Your task to perform on an android device: change notifications settings Image 0: 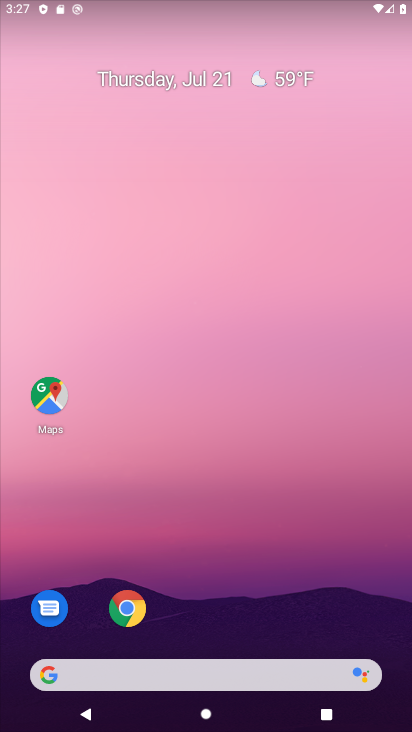
Step 0: drag from (126, 651) to (202, 98)
Your task to perform on an android device: change notifications settings Image 1: 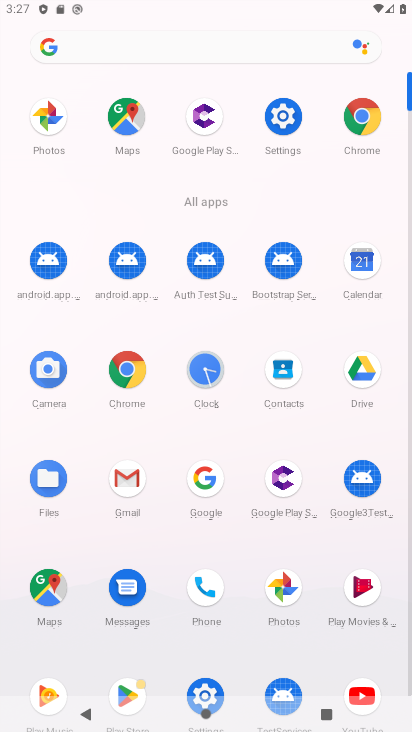
Step 1: click (280, 110)
Your task to perform on an android device: change notifications settings Image 2: 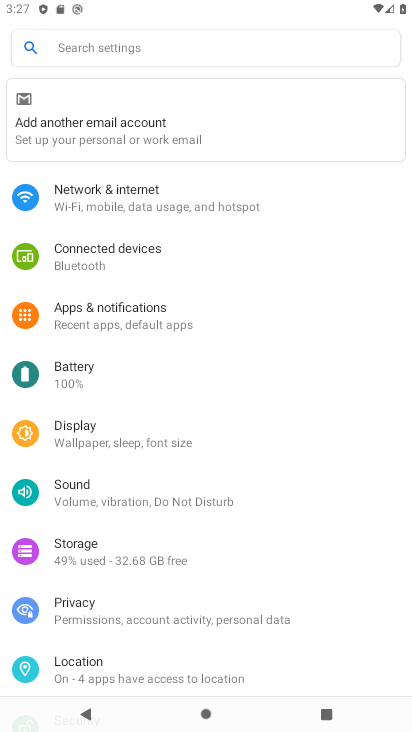
Step 2: click (117, 315)
Your task to perform on an android device: change notifications settings Image 3: 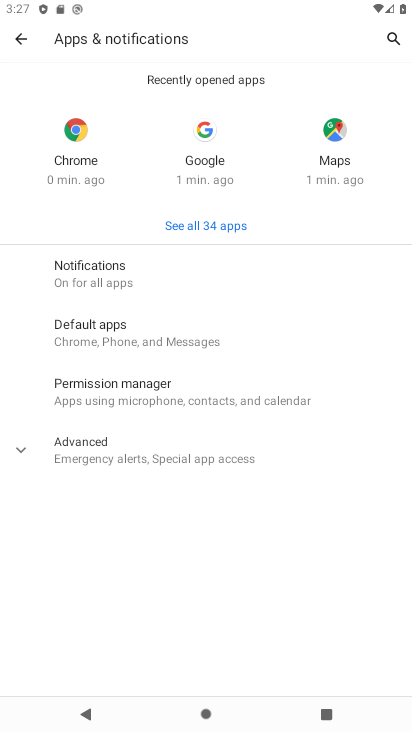
Step 3: click (90, 289)
Your task to perform on an android device: change notifications settings Image 4: 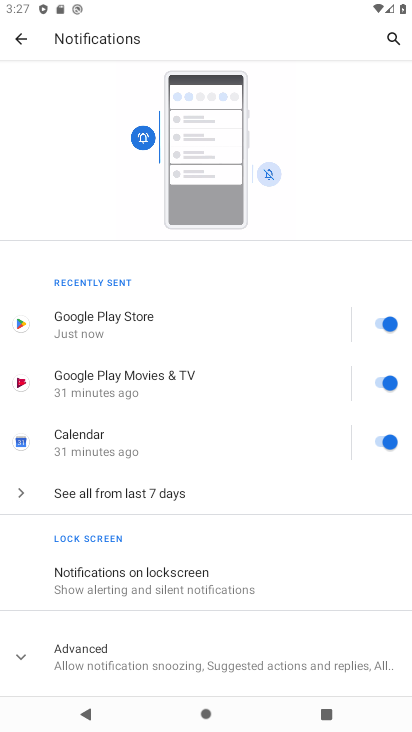
Step 4: task complete